Your task to perform on an android device: Open sound settings Image 0: 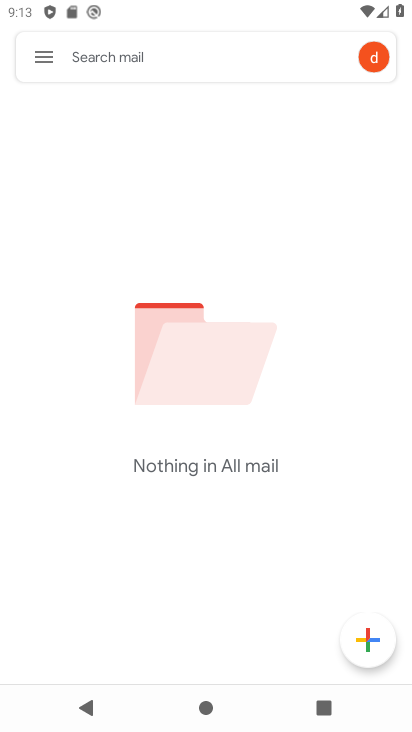
Step 0: press home button
Your task to perform on an android device: Open sound settings Image 1: 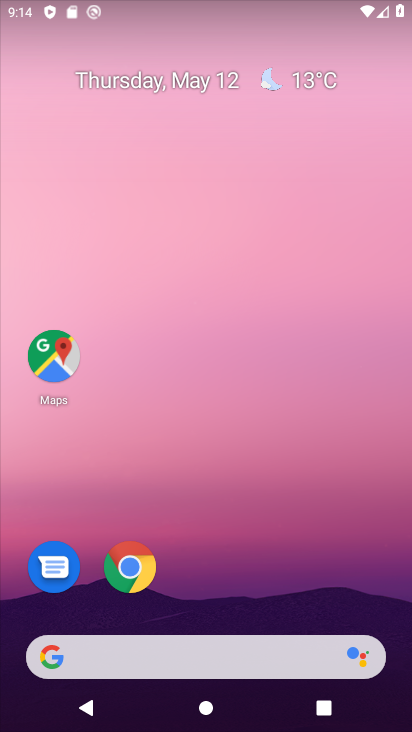
Step 1: drag from (212, 609) to (141, 62)
Your task to perform on an android device: Open sound settings Image 2: 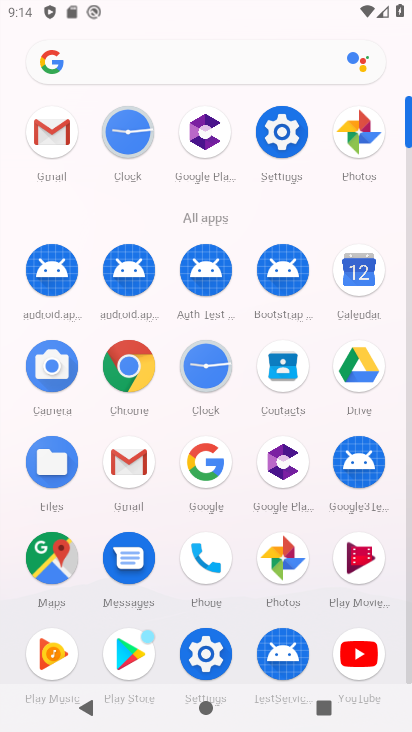
Step 2: click (199, 661)
Your task to perform on an android device: Open sound settings Image 3: 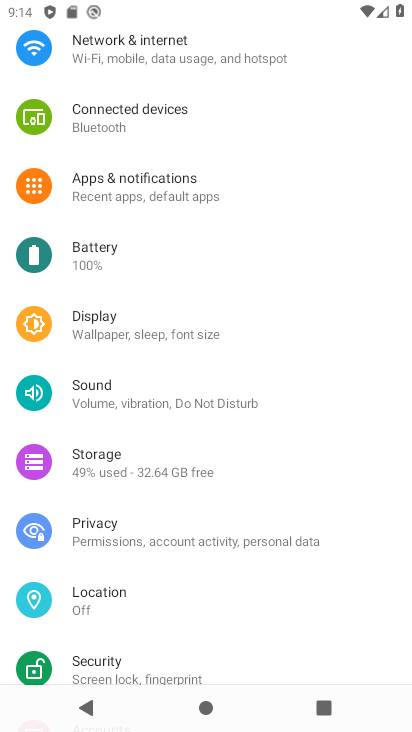
Step 3: click (83, 395)
Your task to perform on an android device: Open sound settings Image 4: 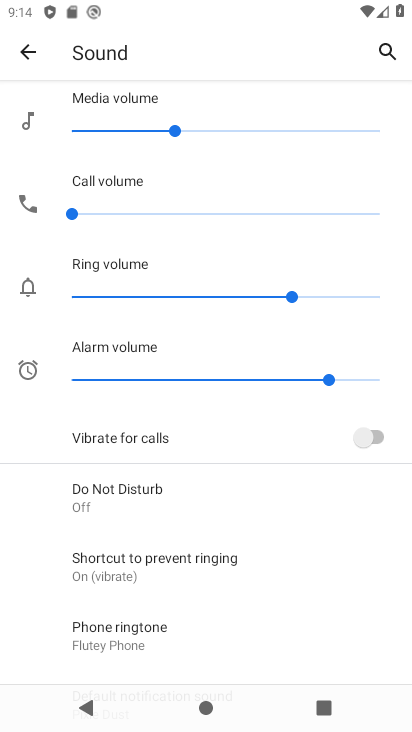
Step 4: task complete